Your task to perform on an android device: set the stopwatch Image 0: 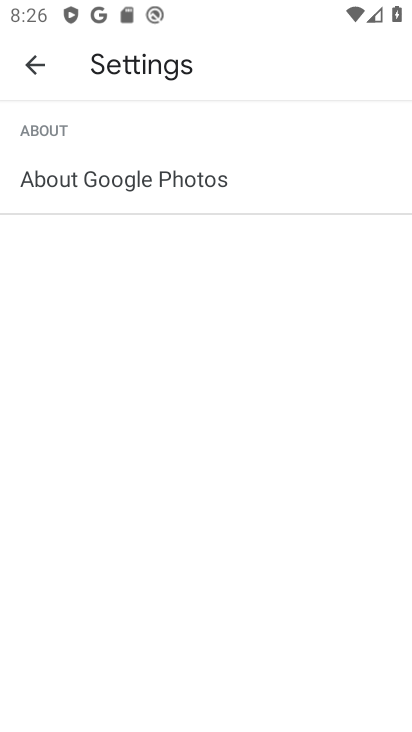
Step 0: click (26, 63)
Your task to perform on an android device: set the stopwatch Image 1: 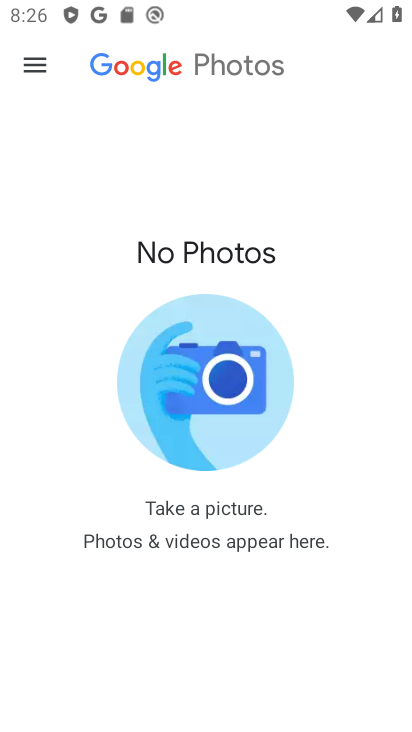
Step 1: press home button
Your task to perform on an android device: set the stopwatch Image 2: 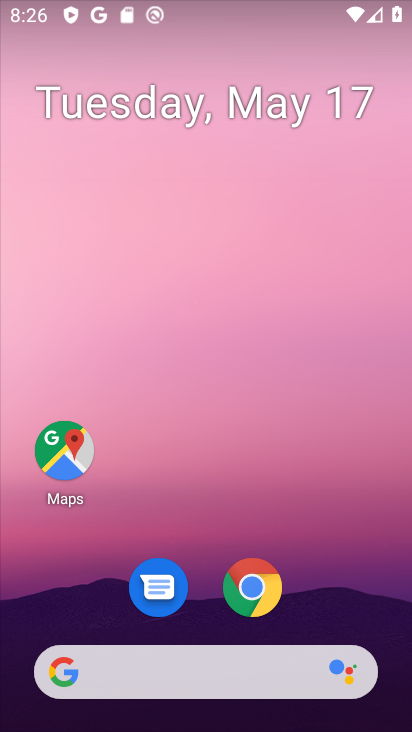
Step 2: drag from (349, 634) to (196, 62)
Your task to perform on an android device: set the stopwatch Image 3: 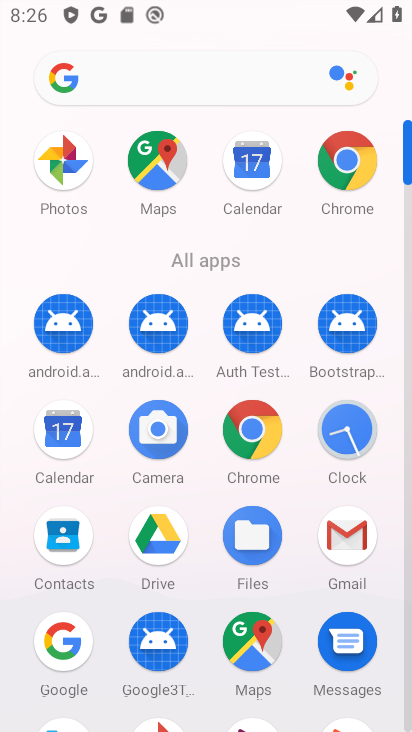
Step 3: click (352, 444)
Your task to perform on an android device: set the stopwatch Image 4: 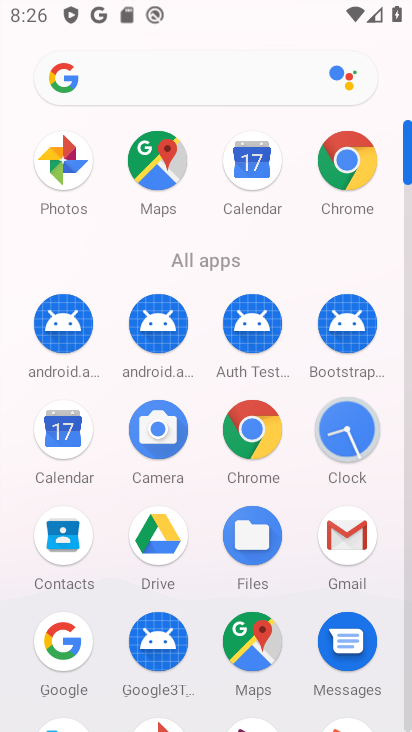
Step 4: click (351, 444)
Your task to perform on an android device: set the stopwatch Image 5: 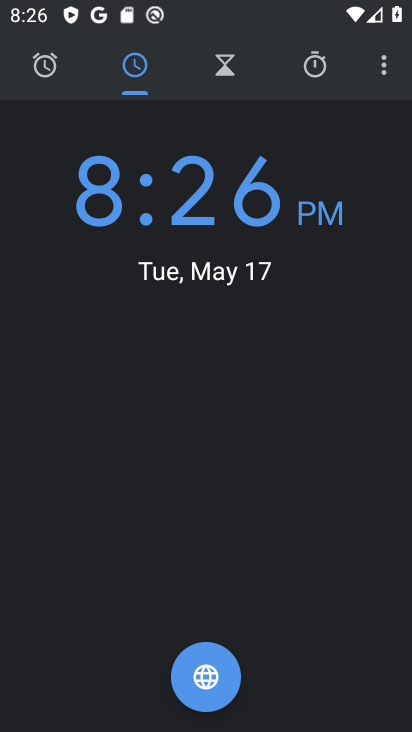
Step 5: click (309, 67)
Your task to perform on an android device: set the stopwatch Image 6: 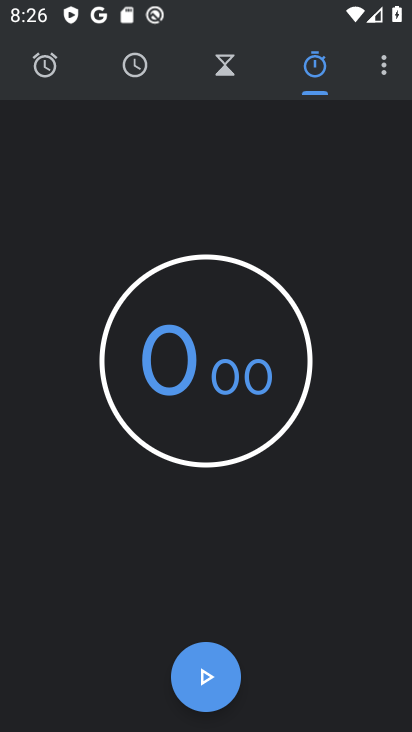
Step 6: click (203, 674)
Your task to perform on an android device: set the stopwatch Image 7: 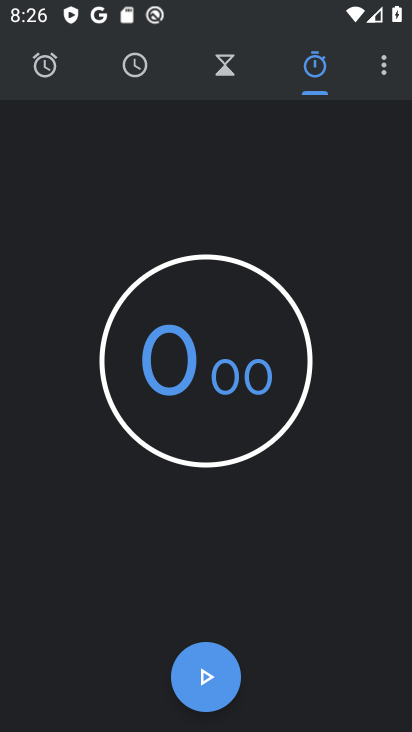
Step 7: click (203, 674)
Your task to perform on an android device: set the stopwatch Image 8: 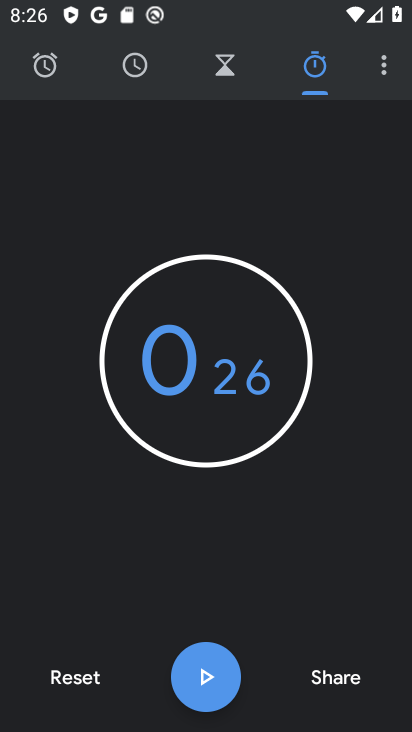
Step 8: click (203, 683)
Your task to perform on an android device: set the stopwatch Image 9: 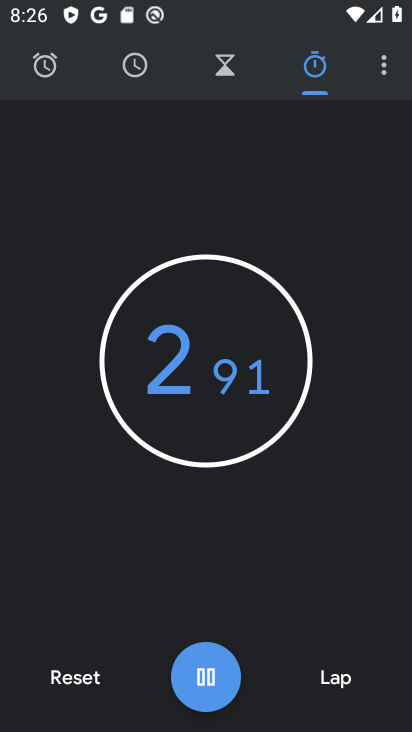
Step 9: click (204, 682)
Your task to perform on an android device: set the stopwatch Image 10: 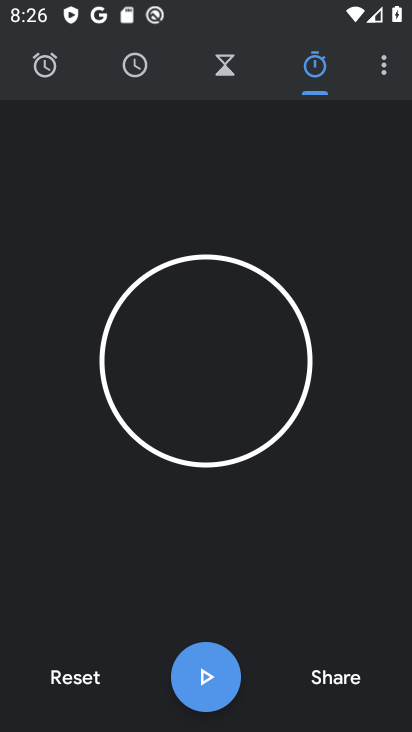
Step 10: task complete